Your task to perform on an android device: View the shopping cart on newegg.com. Search for "logitech g pro" on newegg.com, select the first entry, and add it to the cart. Image 0: 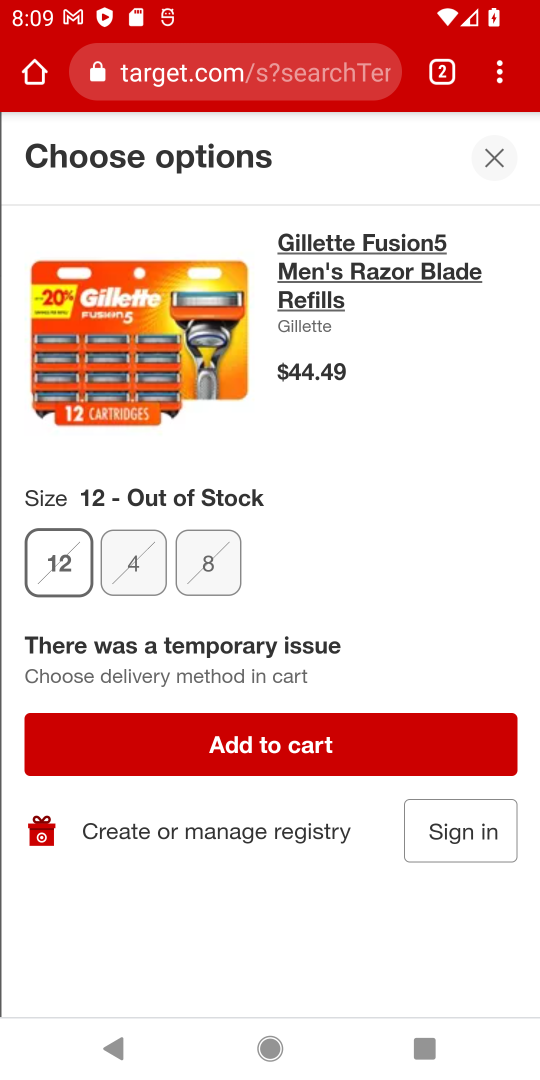
Step 0: press home button
Your task to perform on an android device: View the shopping cart on newegg.com. Search for "logitech g pro" on newegg.com, select the first entry, and add it to the cart. Image 1: 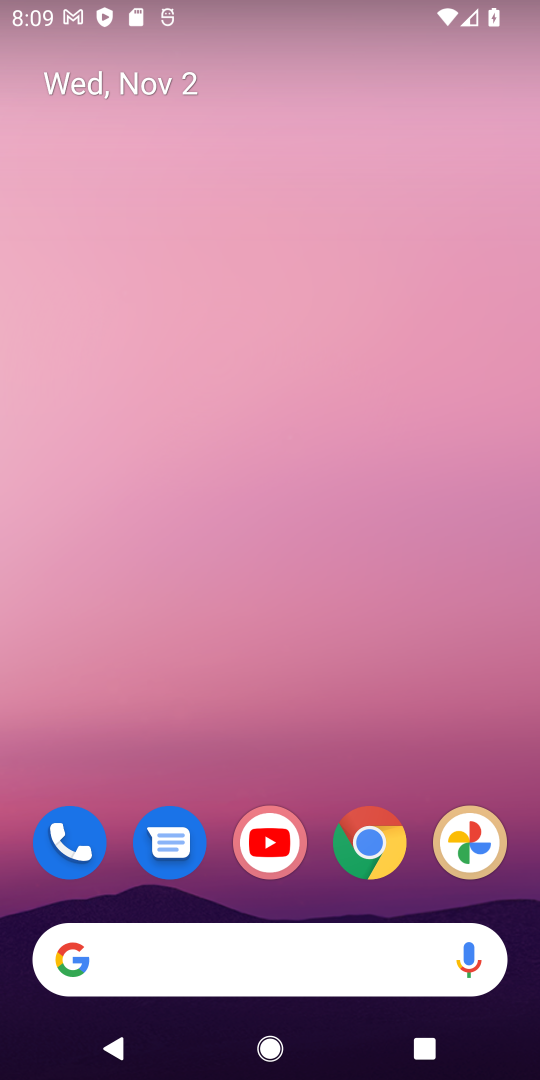
Step 1: drag from (242, 851) to (275, 68)
Your task to perform on an android device: View the shopping cart on newegg.com. Search for "logitech g pro" on newegg.com, select the first entry, and add it to the cart. Image 2: 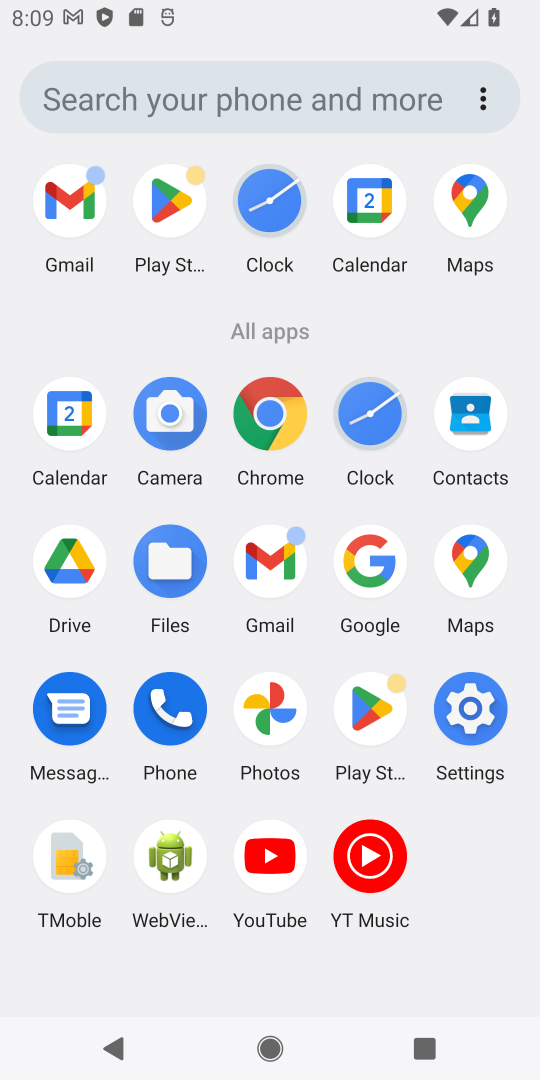
Step 2: click (380, 544)
Your task to perform on an android device: View the shopping cart on newegg.com. Search for "logitech g pro" on newegg.com, select the first entry, and add it to the cart. Image 3: 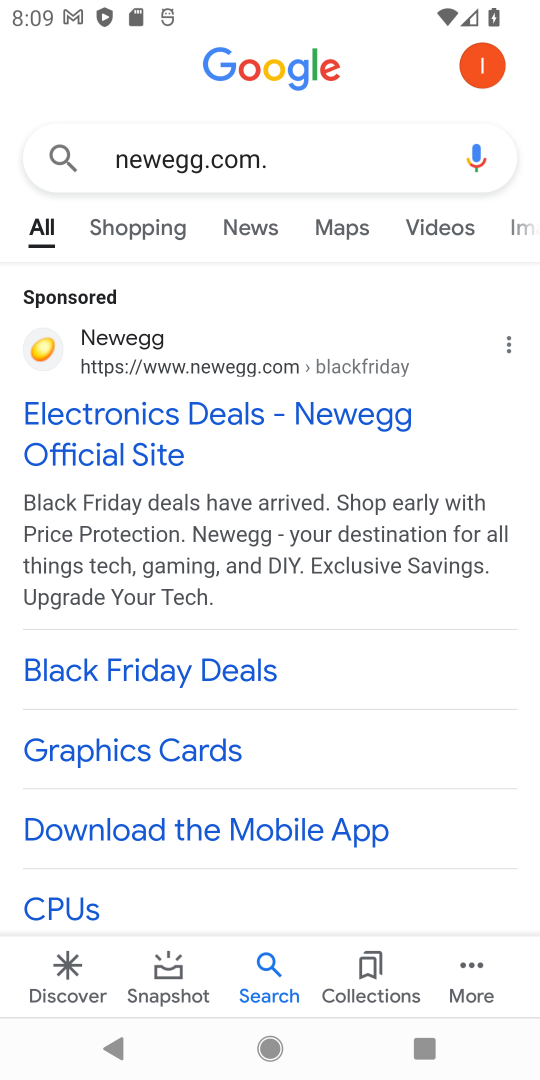
Step 3: click (308, 148)
Your task to perform on an android device: View the shopping cart on newegg.com. Search for "logitech g pro" on newegg.com, select the first entry, and add it to the cart. Image 4: 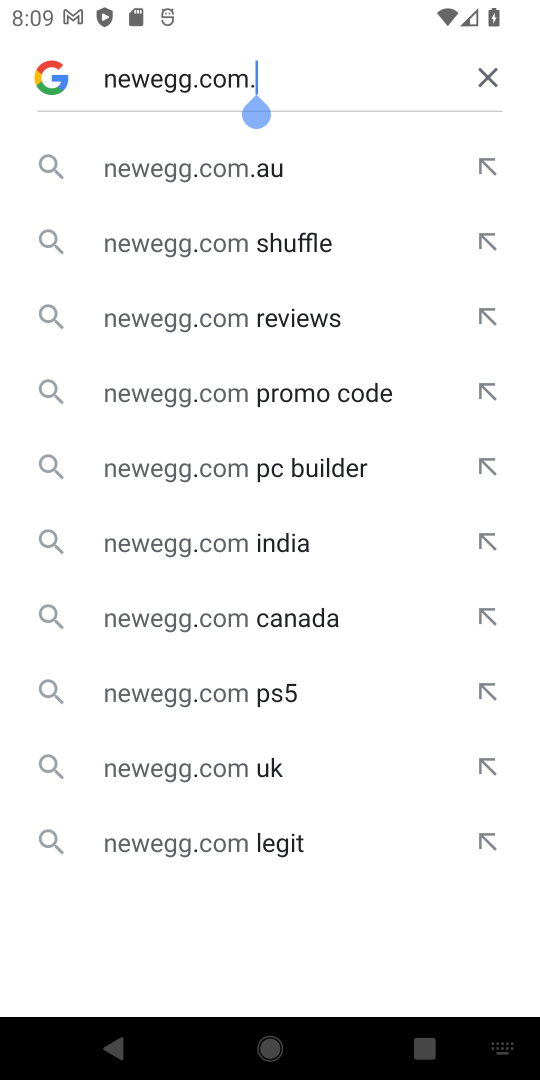
Step 4: click (484, 69)
Your task to perform on an android device: View the shopping cart on newegg.com. Search for "logitech g pro" on newegg.com, select the first entry, and add it to the cart. Image 5: 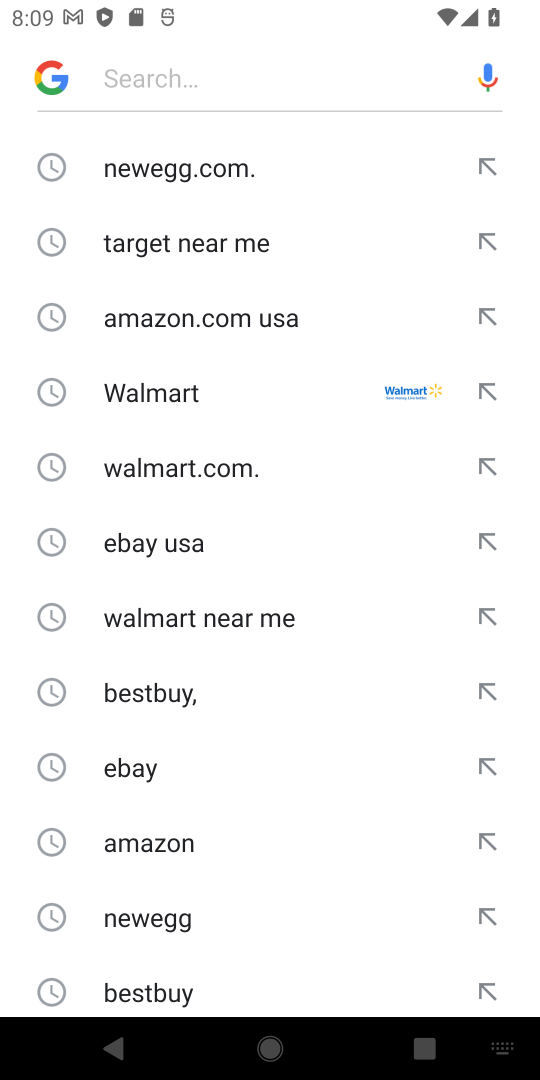
Step 5: click (177, 85)
Your task to perform on an android device: View the shopping cart on newegg.com. Search for "logitech g pro" on newegg.com, select the first entry, and add it to the cart. Image 6: 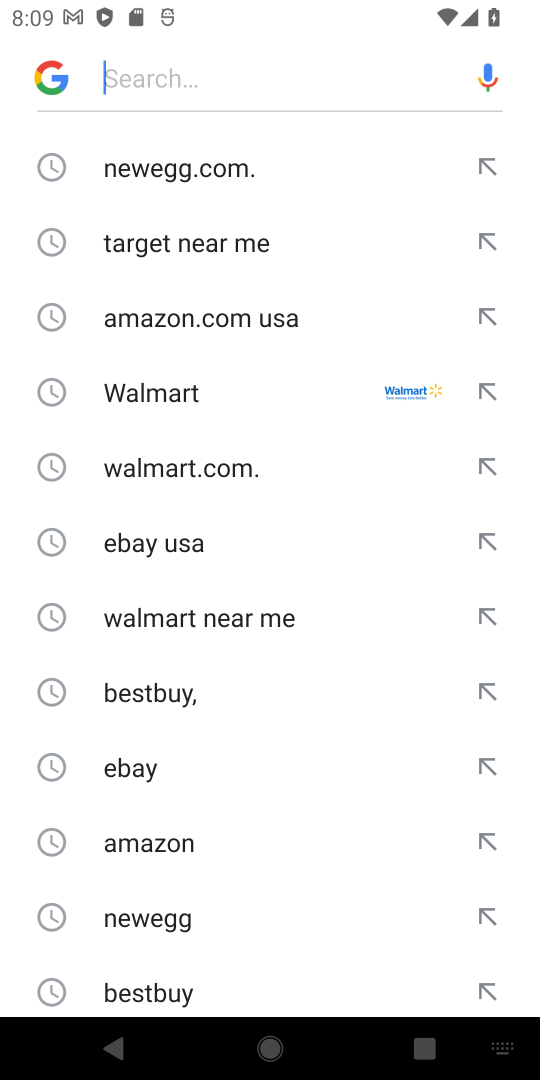
Step 6: click (238, 59)
Your task to perform on an android device: View the shopping cart on newegg.com. Search for "logitech g pro" on newegg.com, select the first entry, and add it to the cart. Image 7: 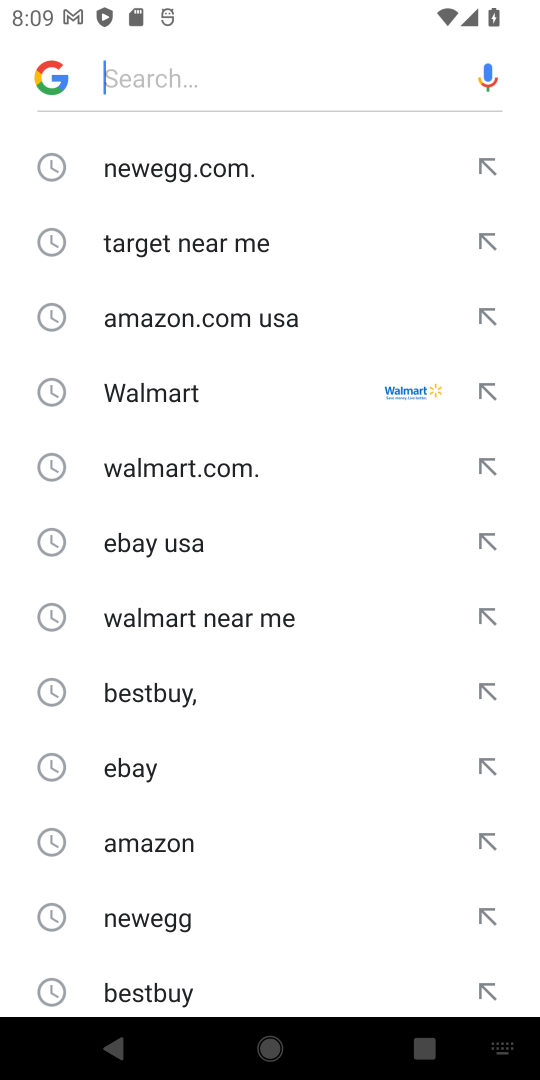
Step 7: type "newegg "
Your task to perform on an android device: View the shopping cart on newegg.com. Search for "logitech g pro" on newegg.com, select the first entry, and add it to the cart. Image 8: 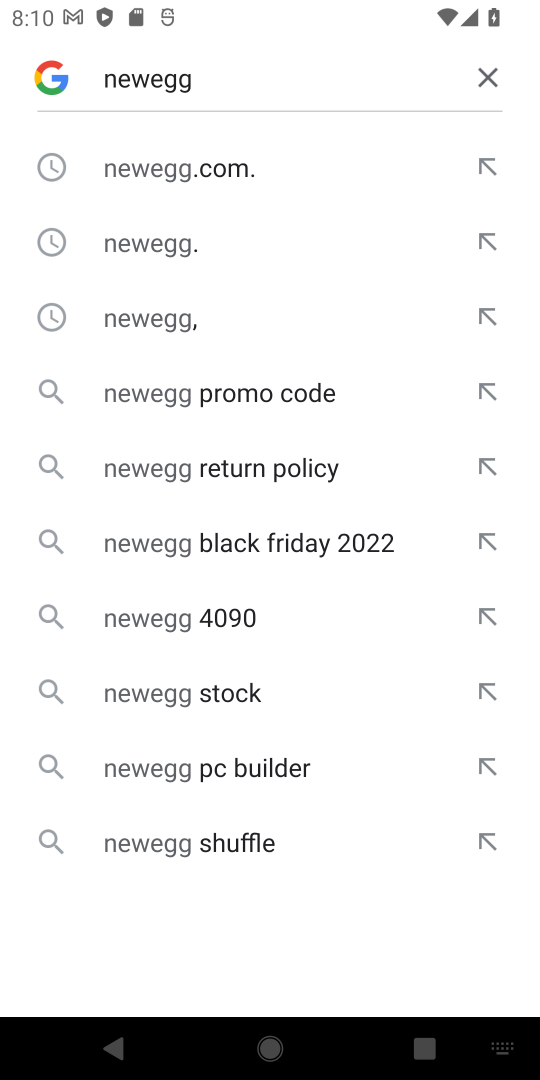
Step 8: click (163, 184)
Your task to perform on an android device: View the shopping cart on newegg.com. Search for "logitech g pro" on newegg.com, select the first entry, and add it to the cart. Image 9: 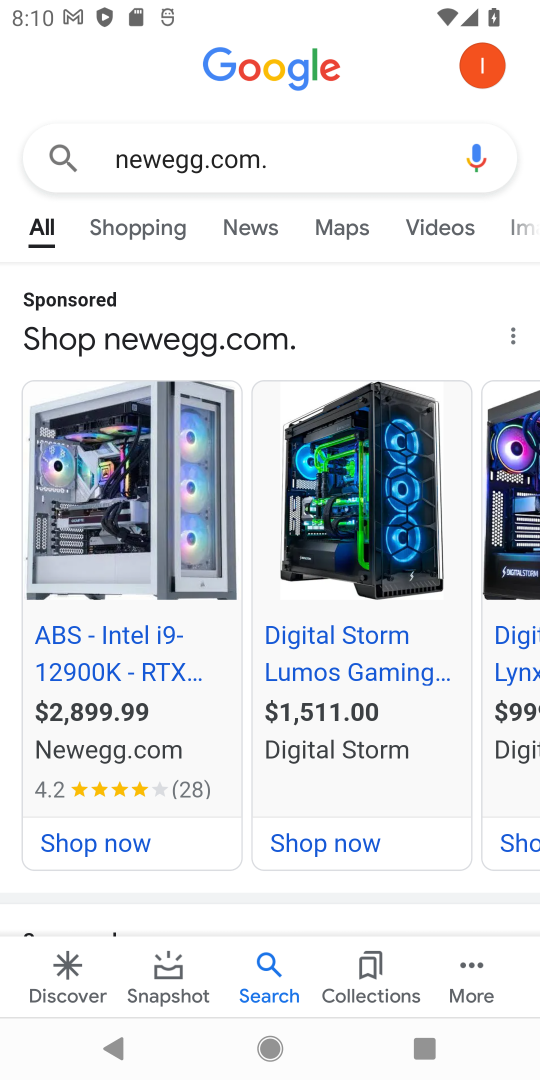
Step 9: drag from (226, 950) to (284, 278)
Your task to perform on an android device: View the shopping cart on newegg.com. Search for "logitech g pro" on newegg.com, select the first entry, and add it to the cart. Image 10: 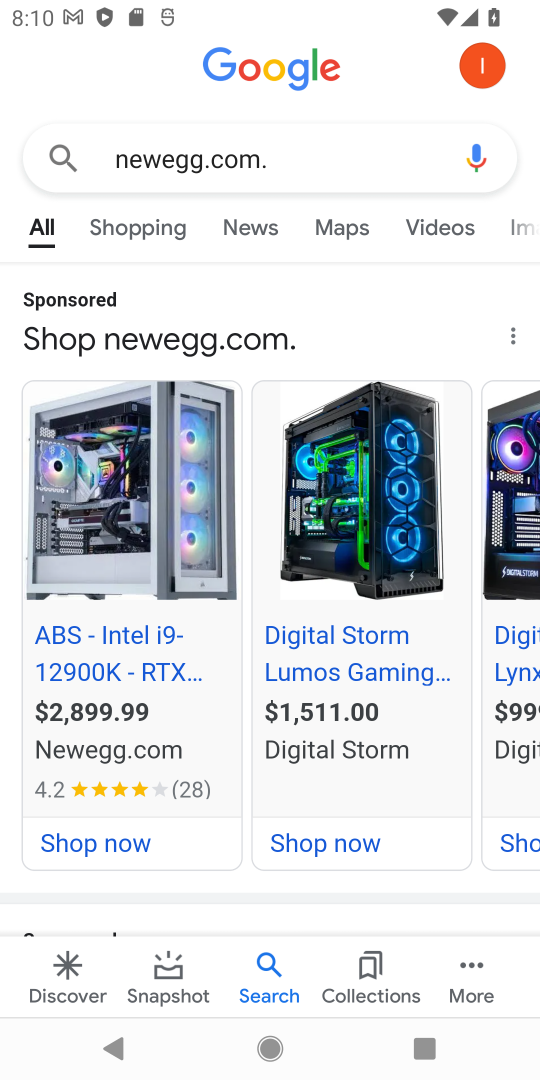
Step 10: drag from (185, 870) to (279, 355)
Your task to perform on an android device: View the shopping cart on newegg.com. Search for "logitech g pro" on newegg.com, select the first entry, and add it to the cart. Image 11: 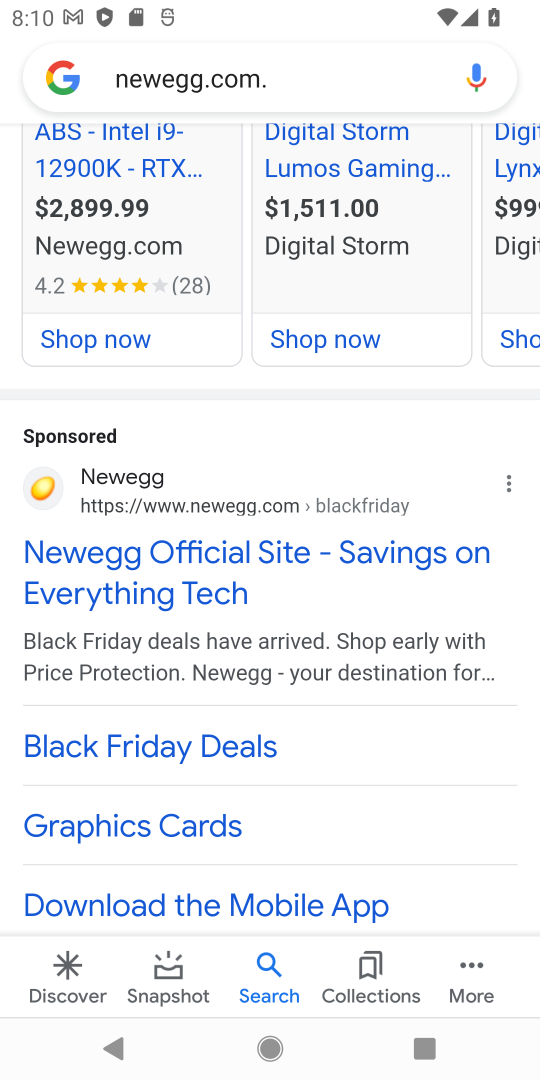
Step 11: click (35, 496)
Your task to perform on an android device: View the shopping cart on newegg.com. Search for "logitech g pro" on newegg.com, select the first entry, and add it to the cart. Image 12: 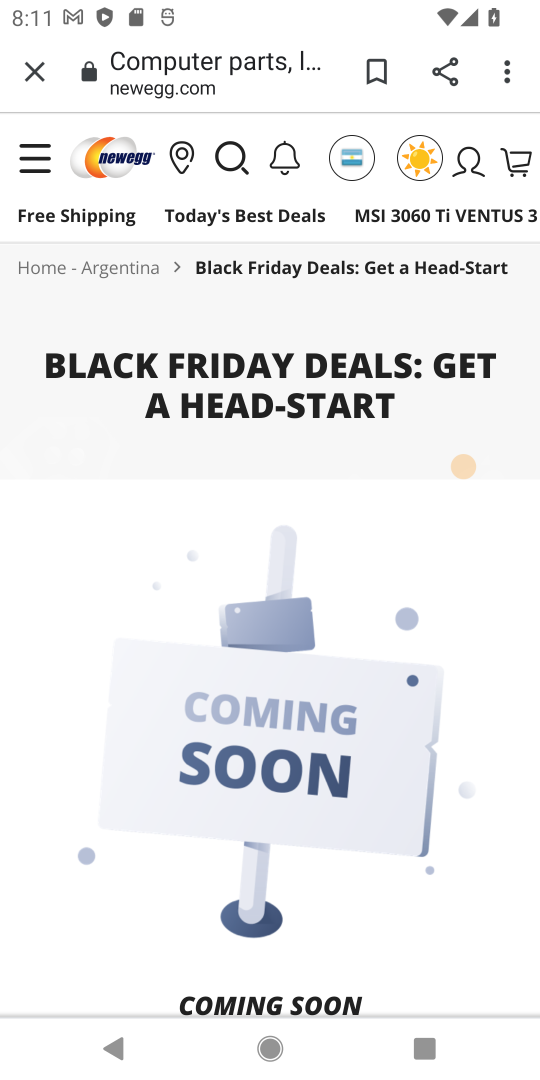
Step 12: click (224, 139)
Your task to perform on an android device: View the shopping cart on newegg.com. Search for "logitech g pro" on newegg.com, select the first entry, and add it to the cart. Image 13: 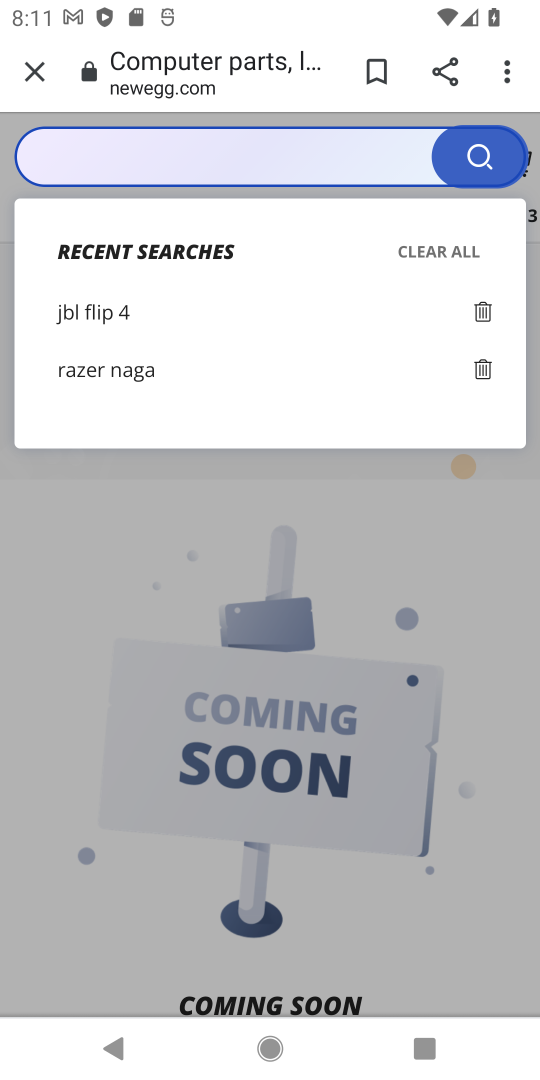
Step 13: click (171, 151)
Your task to perform on an android device: View the shopping cart on newegg.com. Search for "logitech g pro" on newegg.com, select the first entry, and add it to the cart. Image 14: 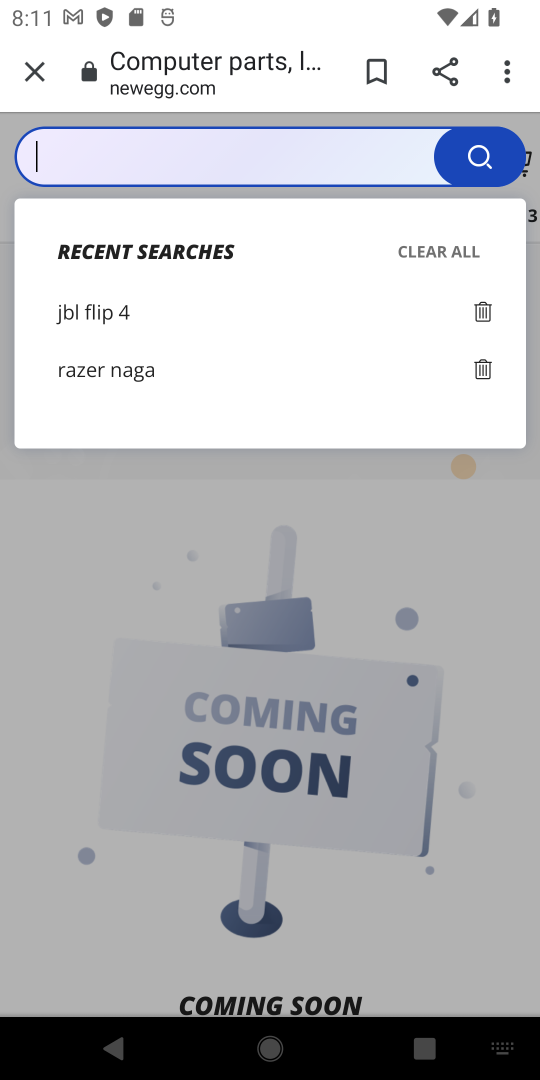
Step 14: type "logitech g pro "
Your task to perform on an android device: View the shopping cart on newegg.com. Search for "logitech g pro" on newegg.com, select the first entry, and add it to the cart. Image 15: 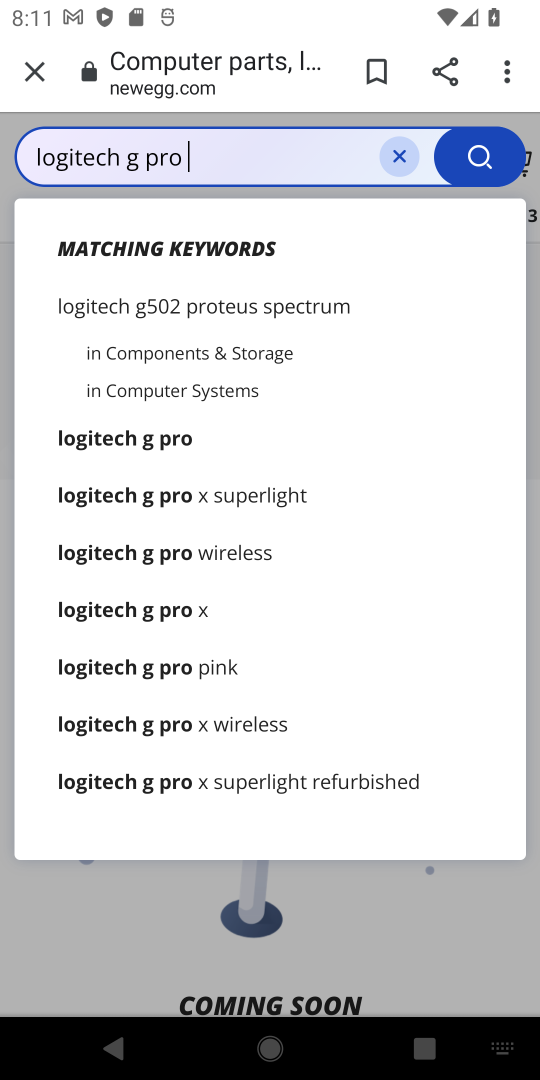
Step 15: click (175, 307)
Your task to perform on an android device: View the shopping cart on newegg.com. Search for "logitech g pro" on newegg.com, select the first entry, and add it to the cart. Image 16: 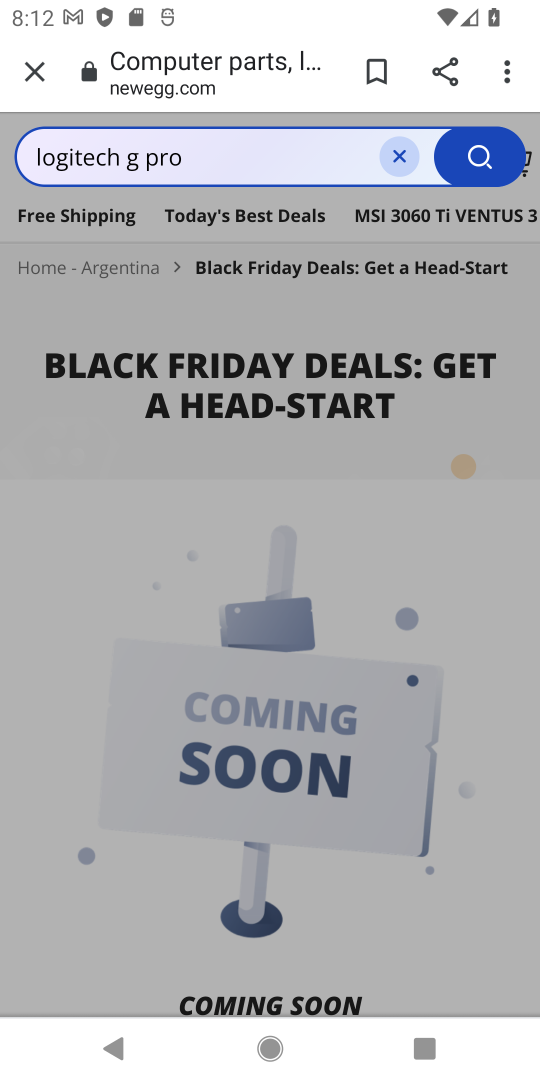
Step 16: drag from (363, 794) to (414, 295)
Your task to perform on an android device: View the shopping cart on newegg.com. Search for "logitech g pro" on newegg.com, select the first entry, and add it to the cart. Image 17: 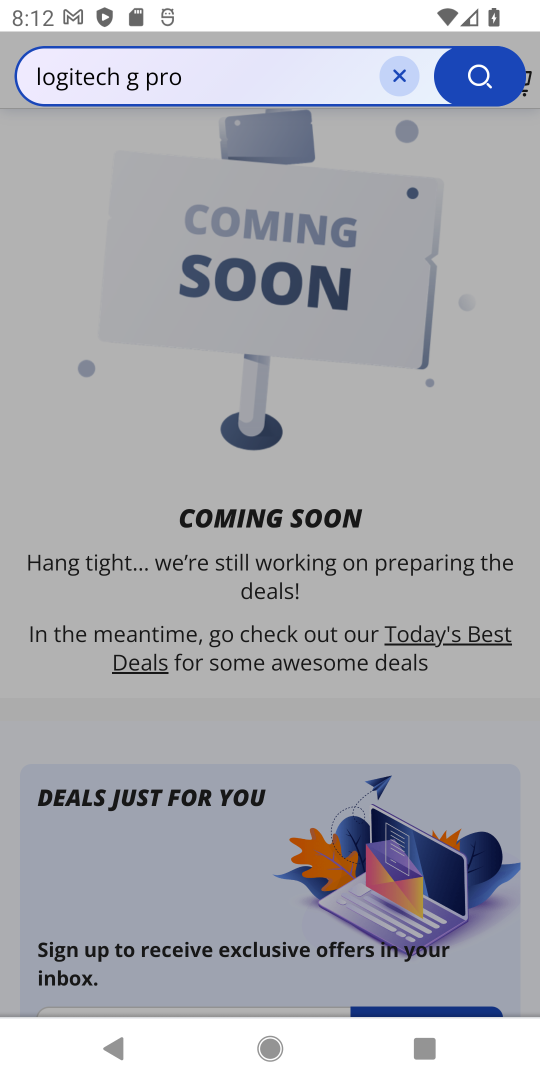
Step 17: drag from (385, 915) to (370, 436)
Your task to perform on an android device: View the shopping cart on newegg.com. Search for "logitech g pro" on newegg.com, select the first entry, and add it to the cart. Image 18: 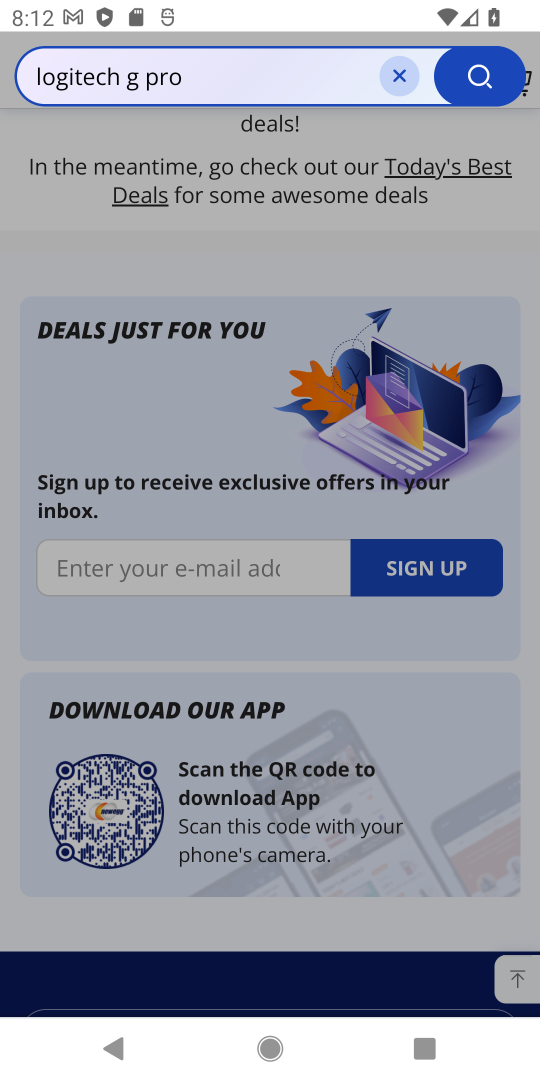
Step 18: click (402, 58)
Your task to perform on an android device: View the shopping cart on newegg.com. Search for "logitech g pro" on newegg.com, select the first entry, and add it to the cart. Image 19: 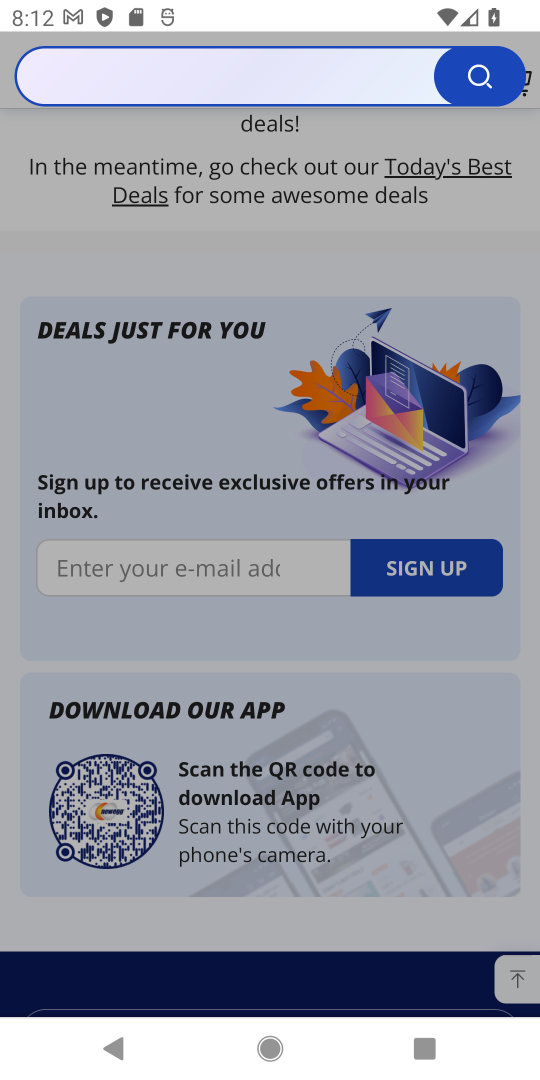
Step 19: click (270, 75)
Your task to perform on an android device: View the shopping cart on newegg.com. Search for "logitech g pro" on newegg.com, select the first entry, and add it to the cart. Image 20: 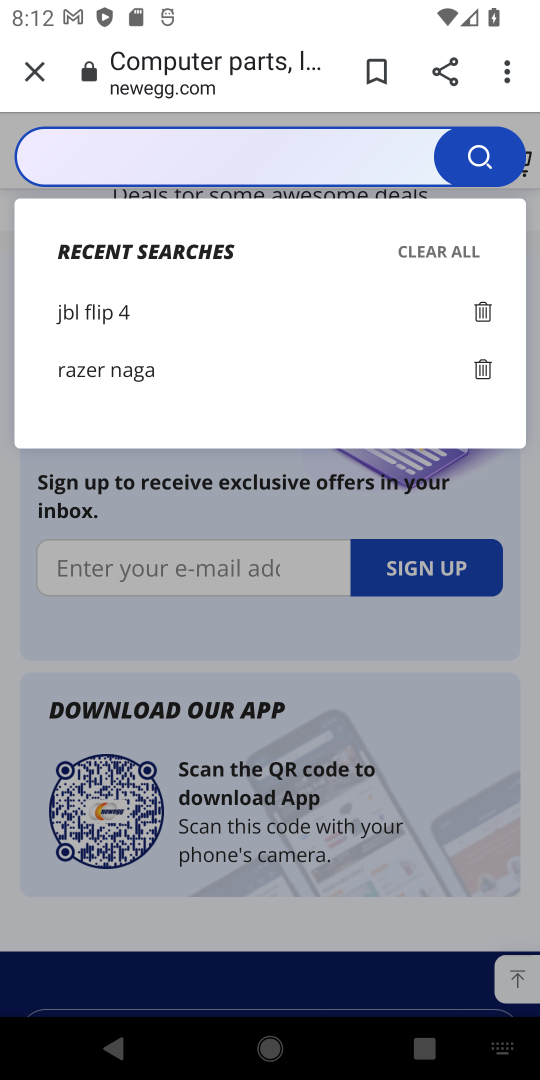
Step 20: type "logitech g pro "
Your task to perform on an android device: View the shopping cart on newegg.com. Search for "logitech g pro" on newegg.com, select the first entry, and add it to the cart. Image 21: 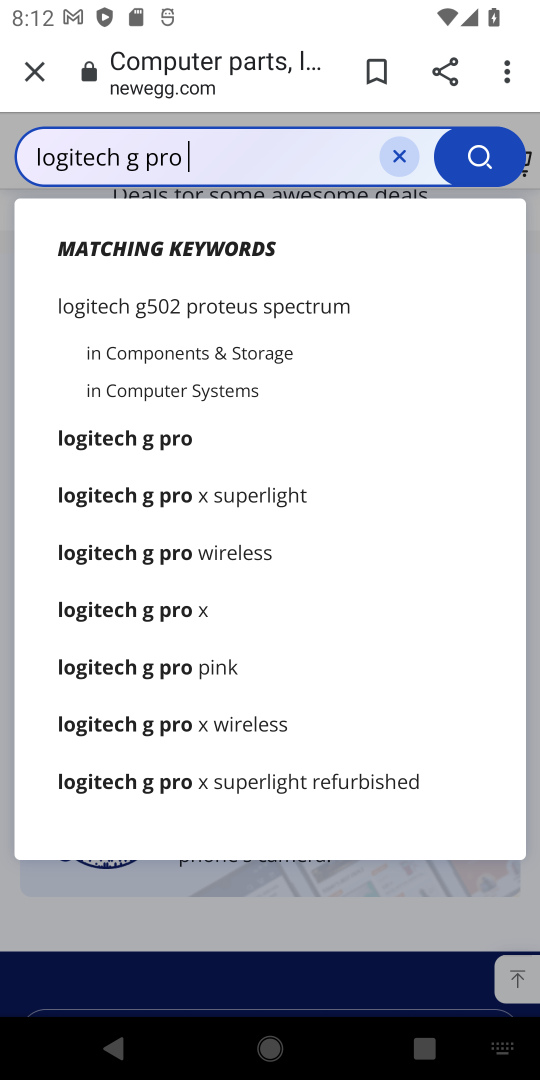
Step 21: click (114, 421)
Your task to perform on an android device: View the shopping cart on newegg.com. Search for "logitech g pro" on newegg.com, select the first entry, and add it to the cart. Image 22: 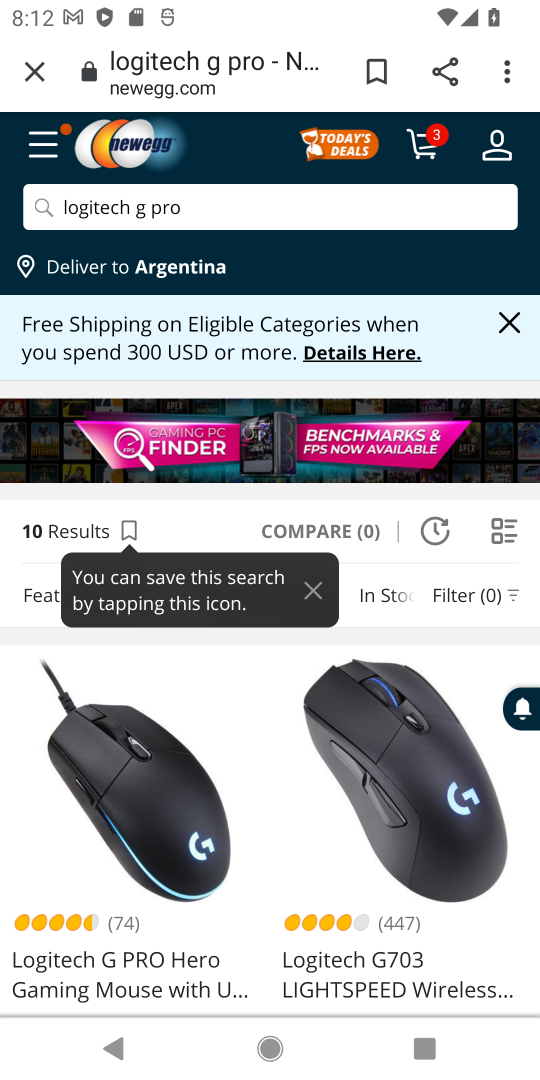
Step 22: drag from (213, 728) to (255, 382)
Your task to perform on an android device: View the shopping cart on newegg.com. Search for "logitech g pro" on newegg.com, select the first entry, and add it to the cart. Image 23: 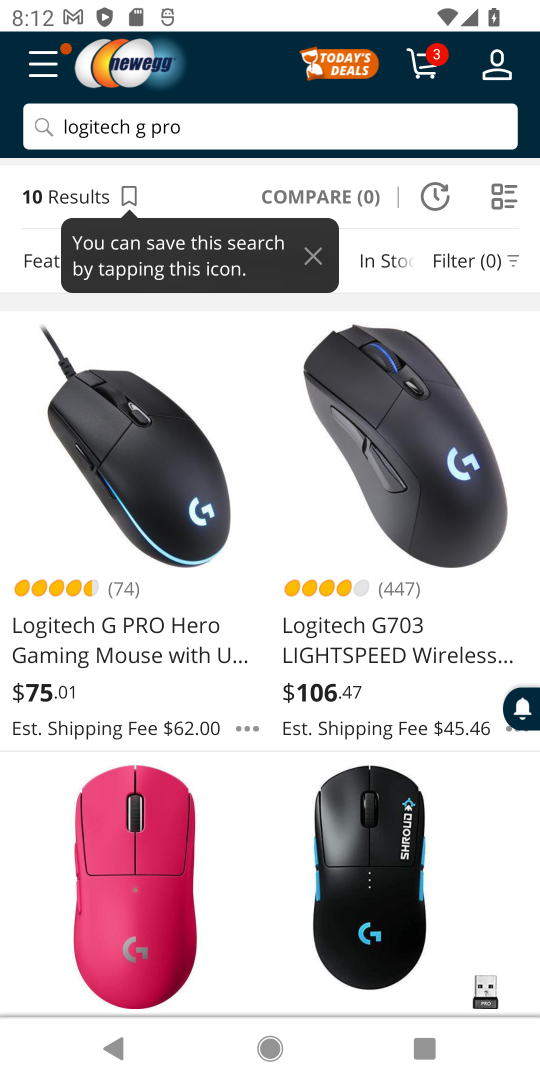
Step 23: click (138, 424)
Your task to perform on an android device: View the shopping cart on newegg.com. Search for "logitech g pro" on newegg.com, select the first entry, and add it to the cart. Image 24: 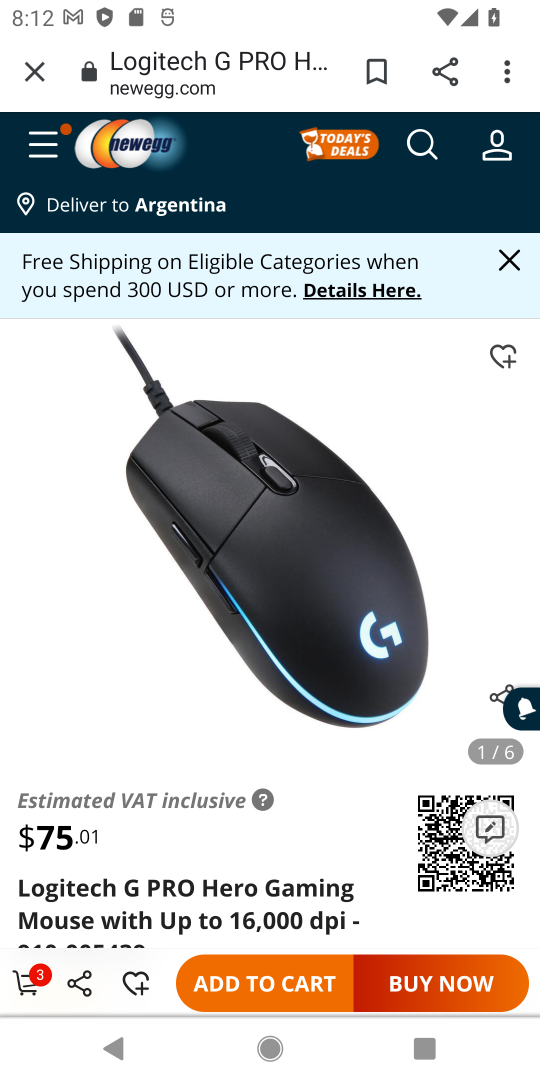
Step 24: click (262, 977)
Your task to perform on an android device: View the shopping cart on newegg.com. Search for "logitech g pro" on newegg.com, select the first entry, and add it to the cart. Image 25: 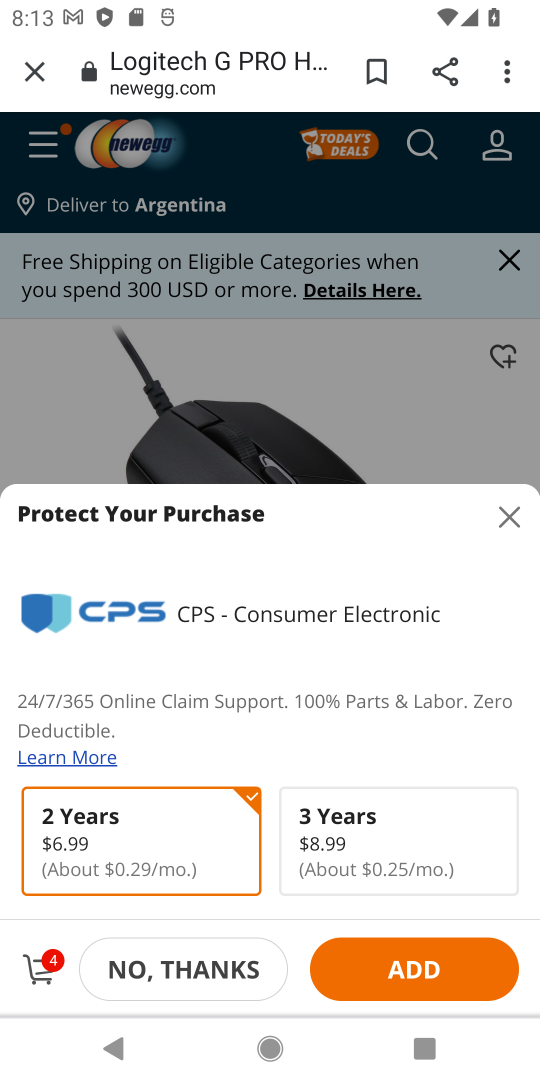
Step 25: click (427, 967)
Your task to perform on an android device: View the shopping cart on newegg.com. Search for "logitech g pro" on newegg.com, select the first entry, and add it to the cart. Image 26: 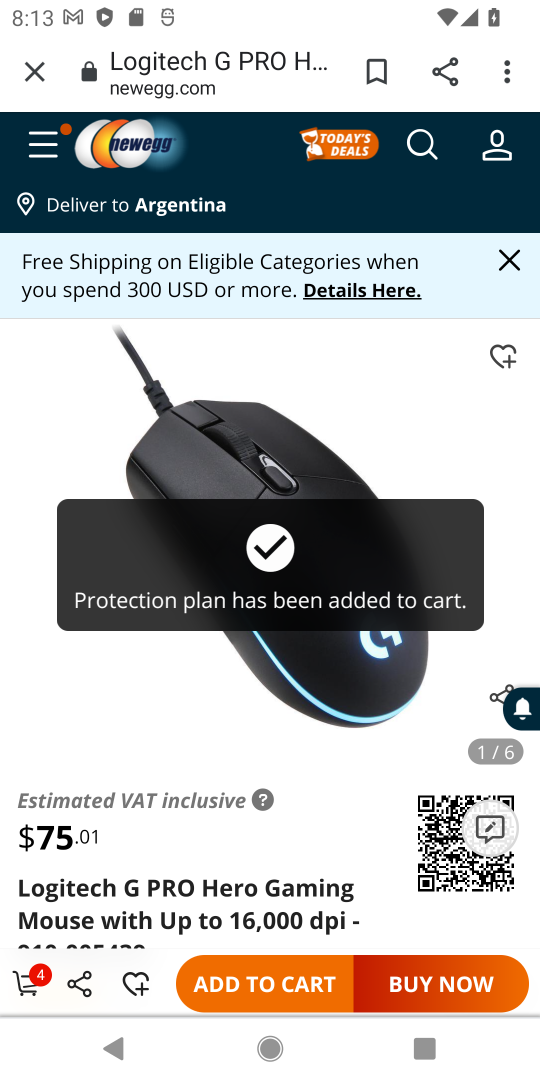
Step 26: task complete